Your task to perform on an android device: Open the web browser Image 0: 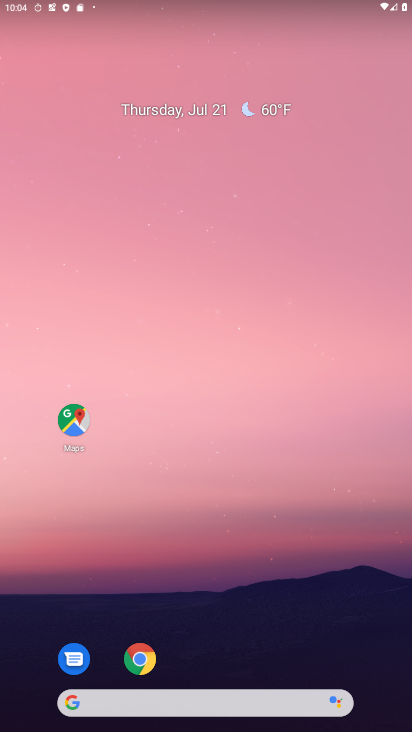
Step 0: click (144, 660)
Your task to perform on an android device: Open the web browser Image 1: 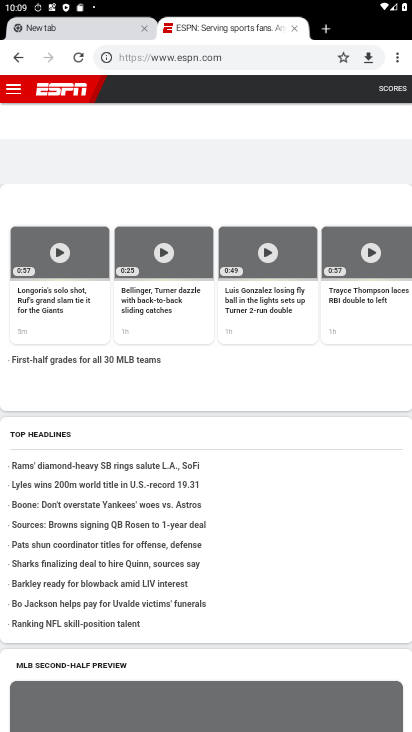
Step 1: task complete